Your task to perform on an android device: toggle show notifications on the lock screen Image 0: 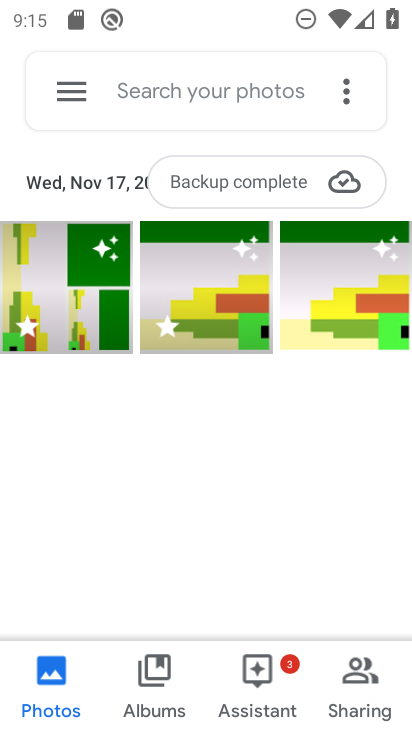
Step 0: press home button
Your task to perform on an android device: toggle show notifications on the lock screen Image 1: 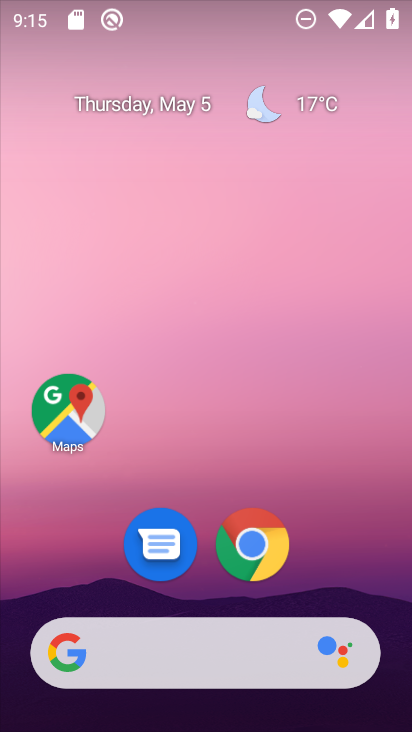
Step 1: drag from (381, 635) to (379, 65)
Your task to perform on an android device: toggle show notifications on the lock screen Image 2: 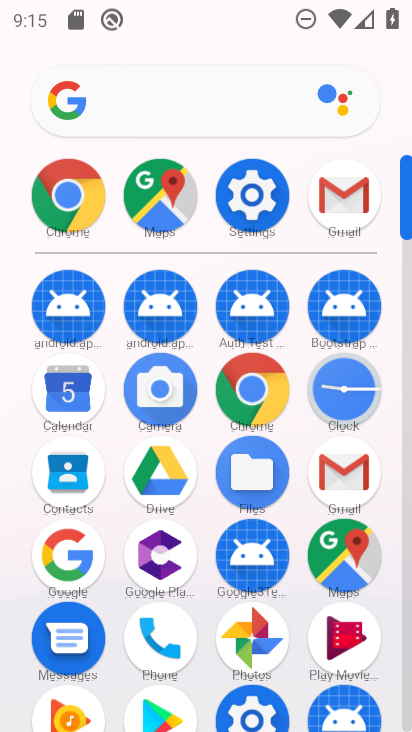
Step 2: click (265, 212)
Your task to perform on an android device: toggle show notifications on the lock screen Image 3: 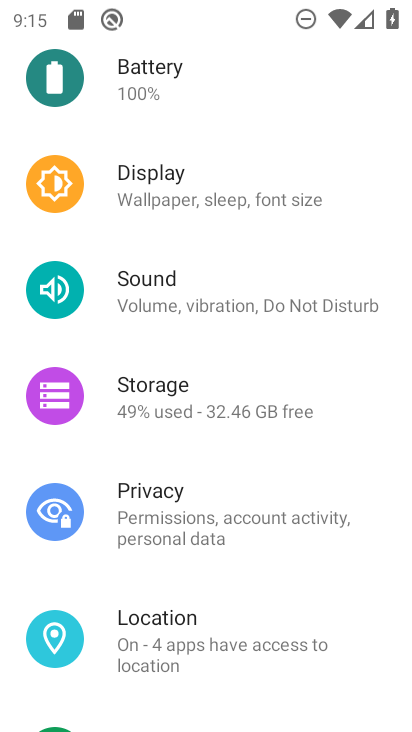
Step 3: drag from (198, 223) to (246, 708)
Your task to perform on an android device: toggle show notifications on the lock screen Image 4: 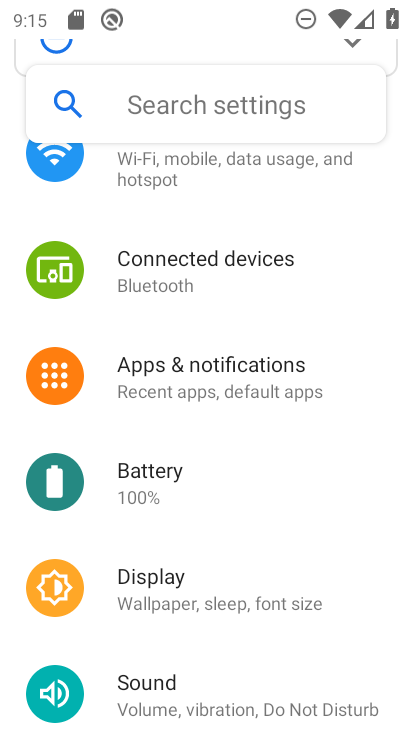
Step 4: click (213, 368)
Your task to perform on an android device: toggle show notifications on the lock screen Image 5: 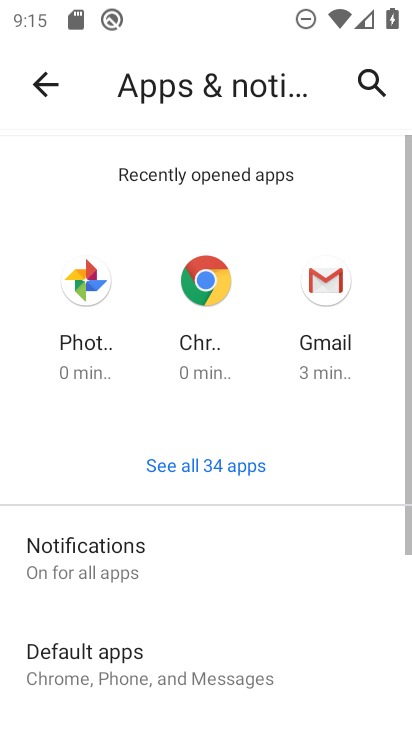
Step 5: click (192, 552)
Your task to perform on an android device: toggle show notifications on the lock screen Image 6: 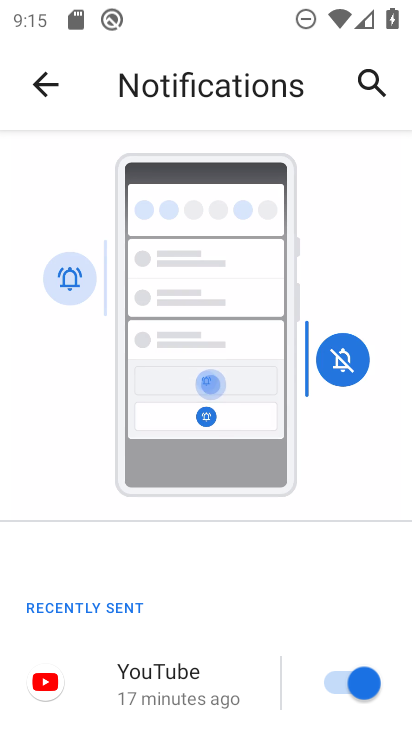
Step 6: drag from (213, 667) to (215, 100)
Your task to perform on an android device: toggle show notifications on the lock screen Image 7: 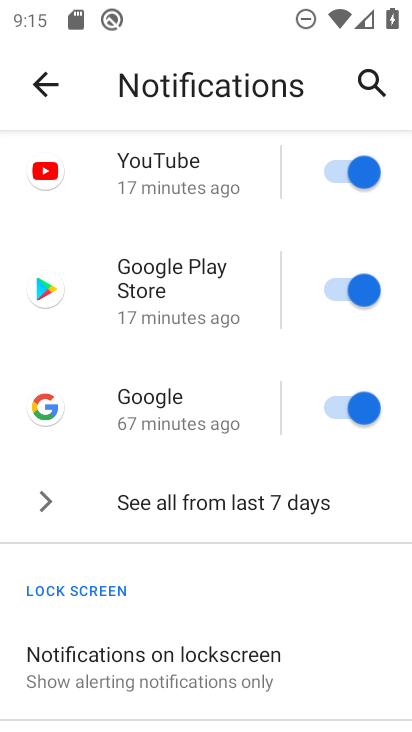
Step 7: drag from (169, 678) to (243, 411)
Your task to perform on an android device: toggle show notifications on the lock screen Image 8: 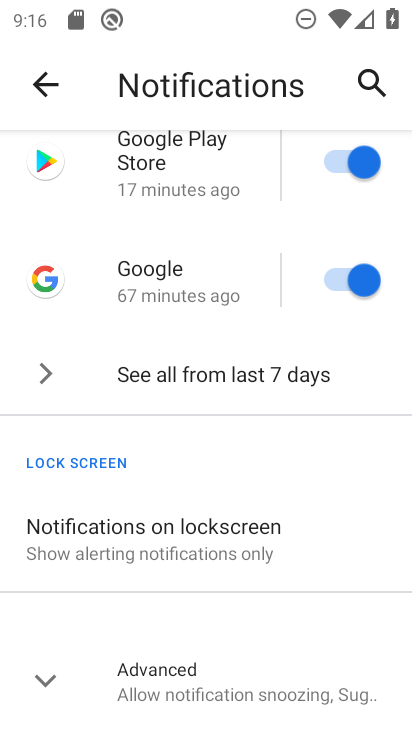
Step 8: click (265, 563)
Your task to perform on an android device: toggle show notifications on the lock screen Image 9: 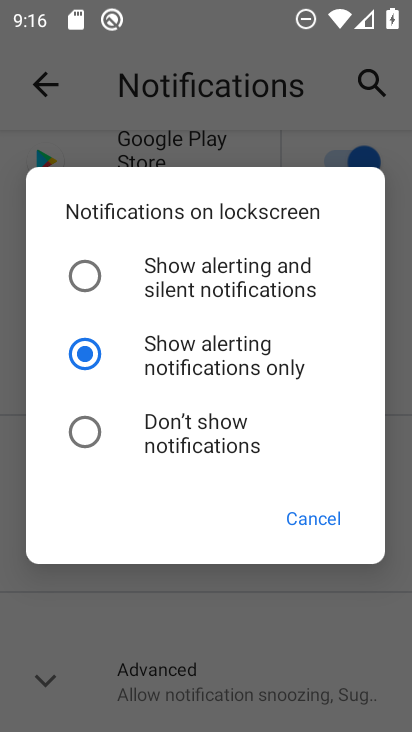
Step 9: click (108, 268)
Your task to perform on an android device: toggle show notifications on the lock screen Image 10: 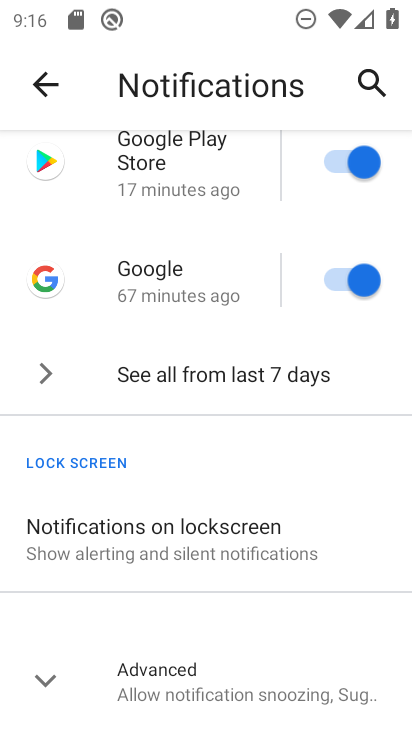
Step 10: task complete